Your task to perform on an android device: Search for logitech g910 on newegg.com, select the first entry, add it to the cart, then select checkout. Image 0: 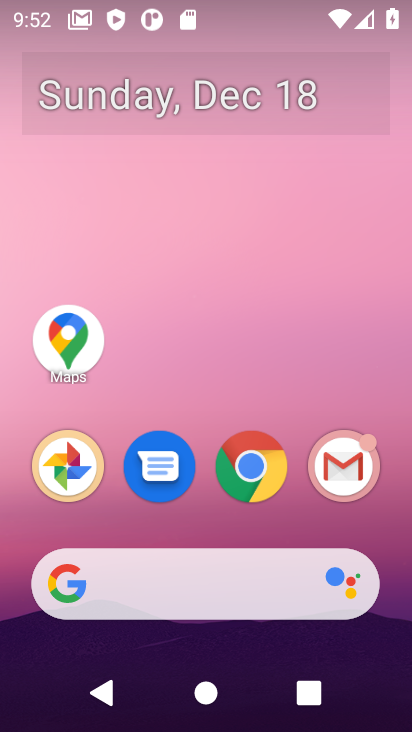
Step 0: click (252, 465)
Your task to perform on an android device: Search for logitech g910 on newegg.com, select the first entry, add it to the cart, then select checkout. Image 1: 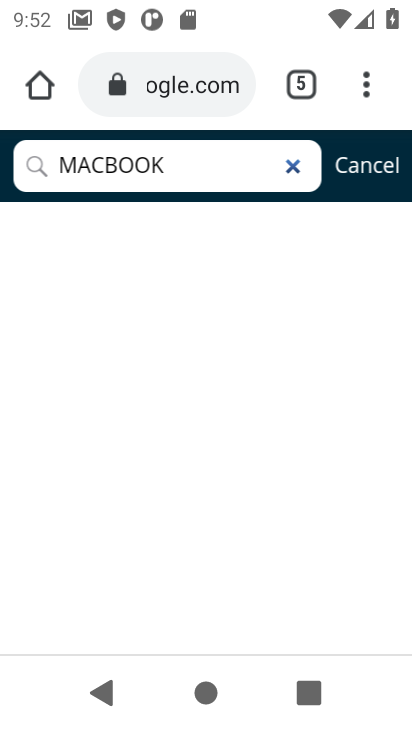
Step 1: click (293, 165)
Your task to perform on an android device: Search for logitech g910 on newegg.com, select the first entry, add it to the cart, then select checkout. Image 2: 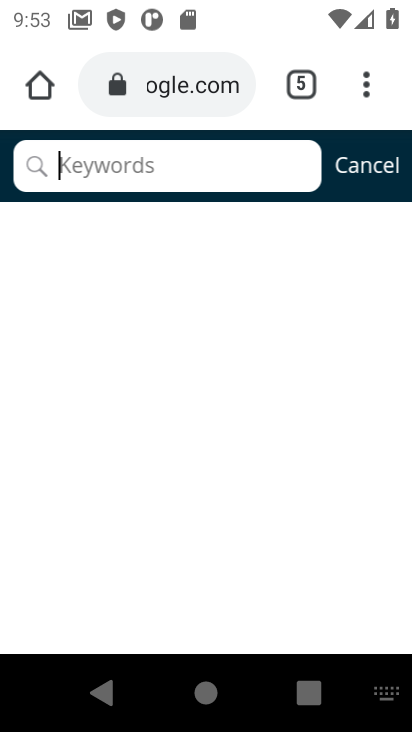
Step 2: type "LOGITECH G910"
Your task to perform on an android device: Search for logitech g910 on newegg.com, select the first entry, add it to the cart, then select checkout. Image 3: 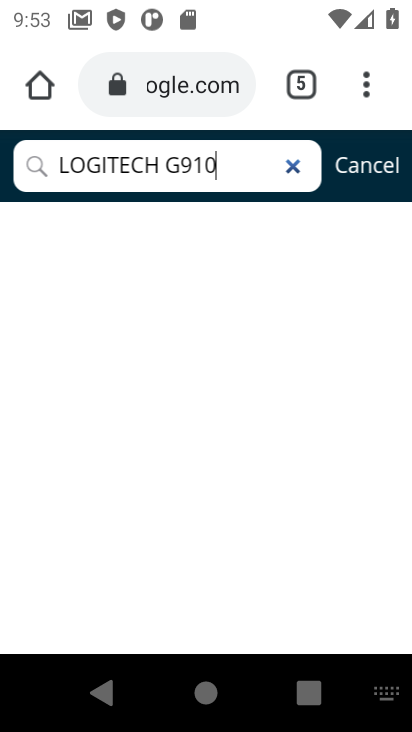
Step 3: task complete